Your task to perform on an android device: What's on my calendar tomorrow? Image 0: 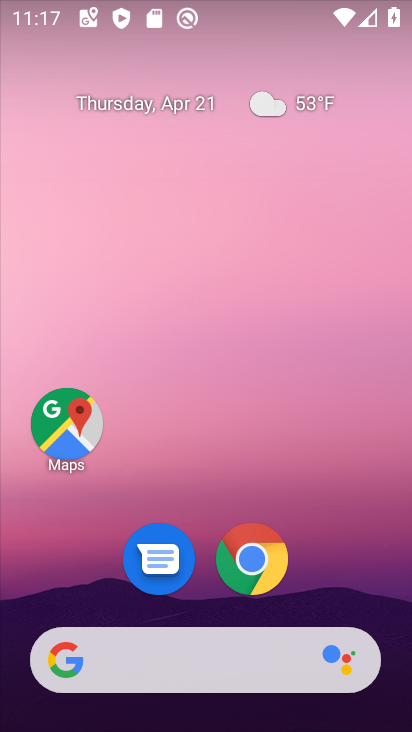
Step 0: drag from (386, 605) to (411, 207)
Your task to perform on an android device: What's on my calendar tomorrow? Image 1: 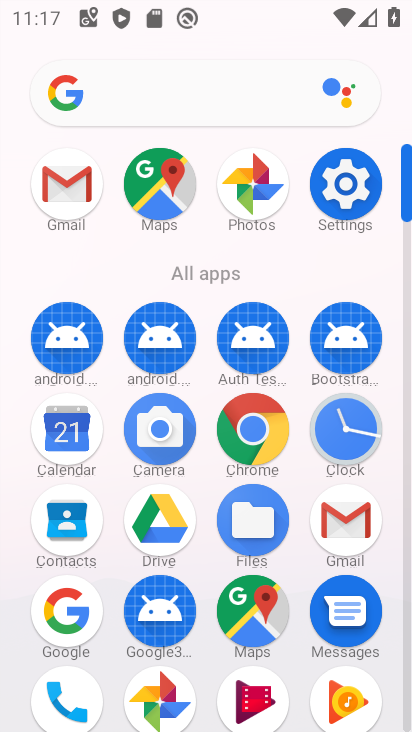
Step 1: click (60, 430)
Your task to perform on an android device: What's on my calendar tomorrow? Image 2: 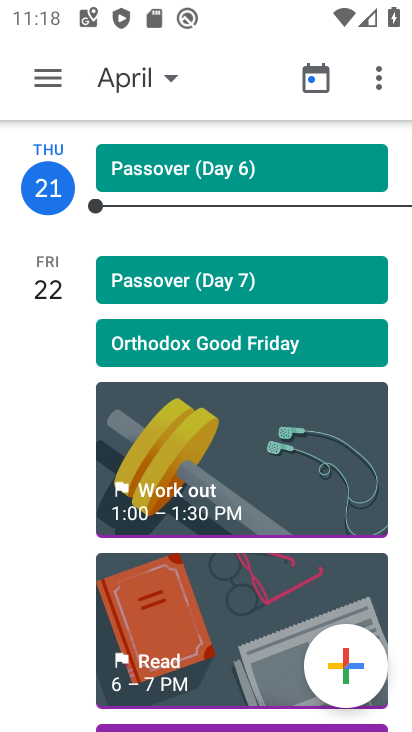
Step 2: click (169, 83)
Your task to perform on an android device: What's on my calendar tomorrow? Image 3: 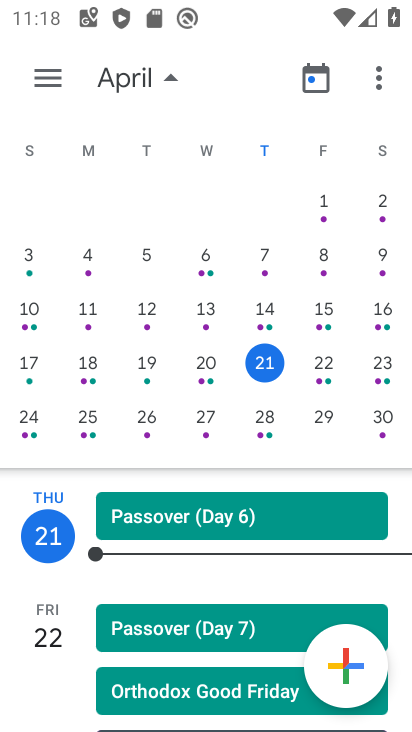
Step 3: click (334, 386)
Your task to perform on an android device: What's on my calendar tomorrow? Image 4: 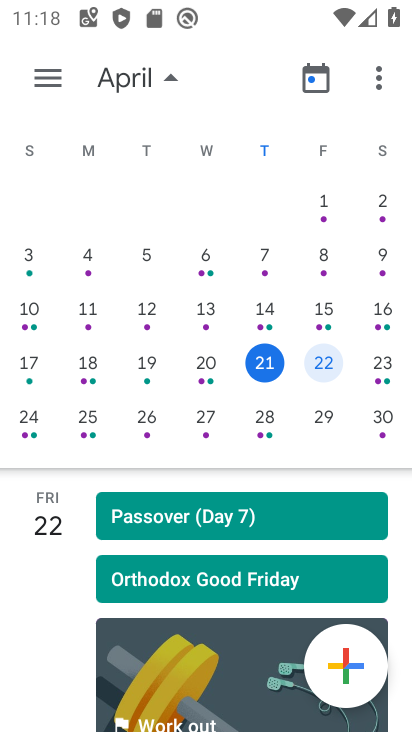
Step 4: drag from (199, 488) to (187, 125)
Your task to perform on an android device: What's on my calendar tomorrow? Image 5: 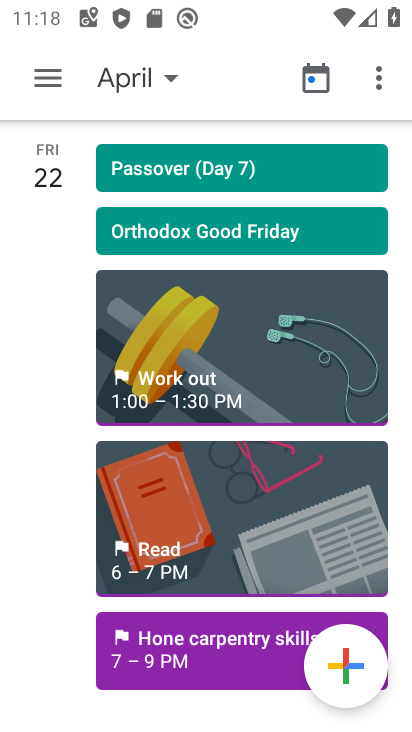
Step 5: click (200, 641)
Your task to perform on an android device: What's on my calendar tomorrow? Image 6: 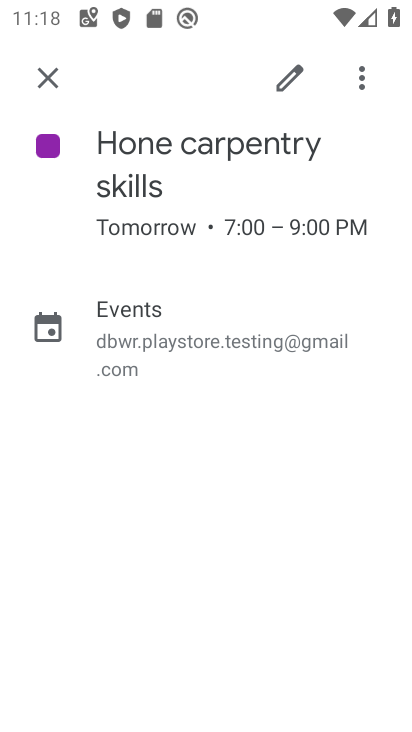
Step 6: task complete